Your task to perform on an android device: Go to CNN.com Image 0: 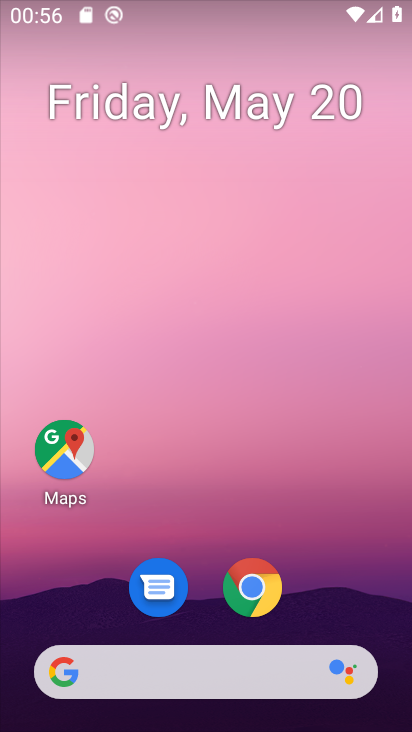
Step 0: drag from (382, 621) to (367, 233)
Your task to perform on an android device: Go to CNN.com Image 1: 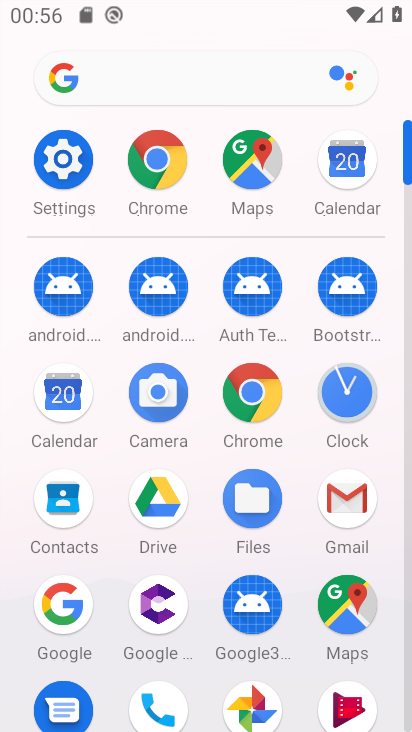
Step 1: click (260, 398)
Your task to perform on an android device: Go to CNN.com Image 2: 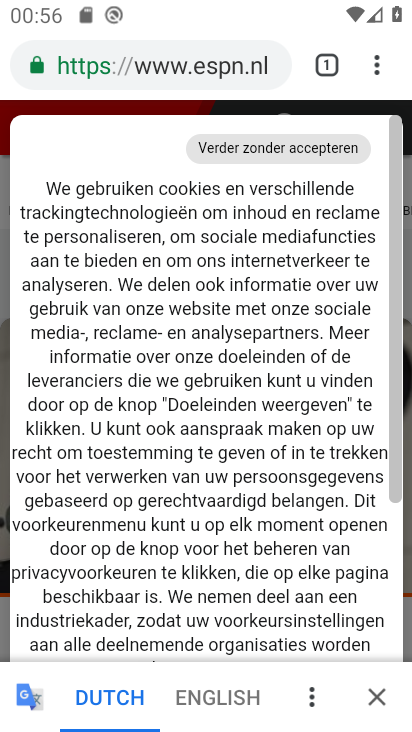
Step 2: click (231, 74)
Your task to perform on an android device: Go to CNN.com Image 3: 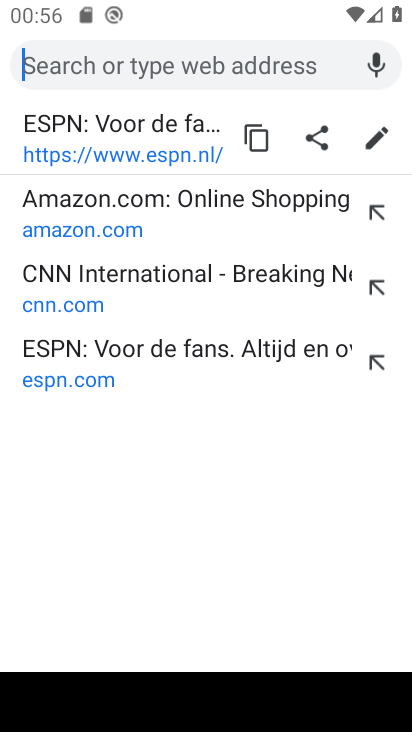
Step 3: type "cnn.com"
Your task to perform on an android device: Go to CNN.com Image 4: 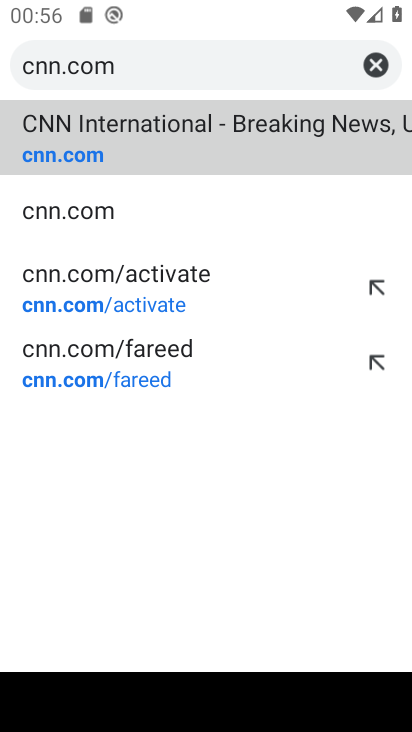
Step 4: click (94, 219)
Your task to perform on an android device: Go to CNN.com Image 5: 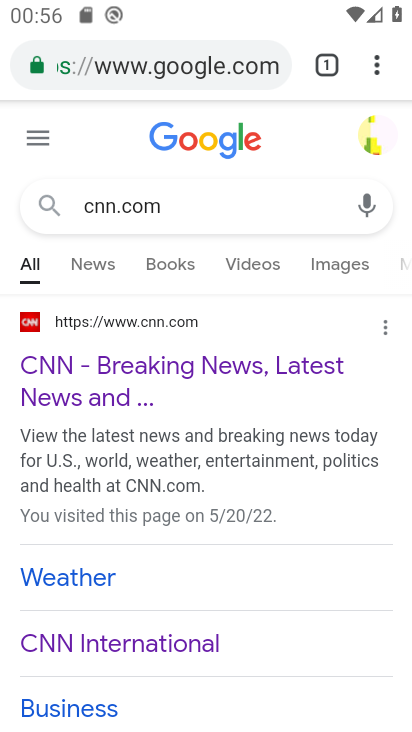
Step 5: task complete